Your task to perform on an android device: turn off data saver in the chrome app Image 0: 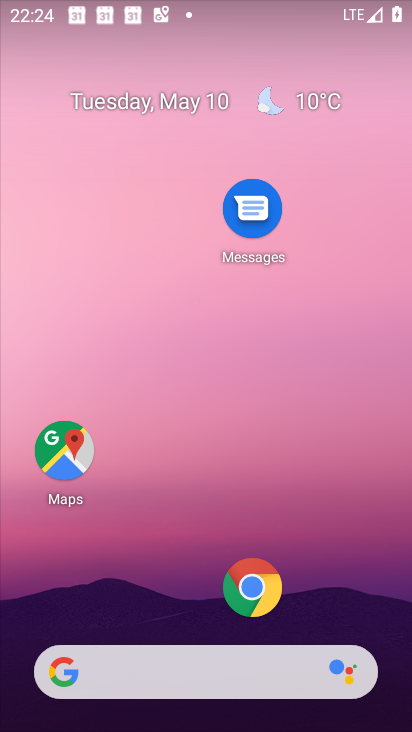
Step 0: click (260, 589)
Your task to perform on an android device: turn off data saver in the chrome app Image 1: 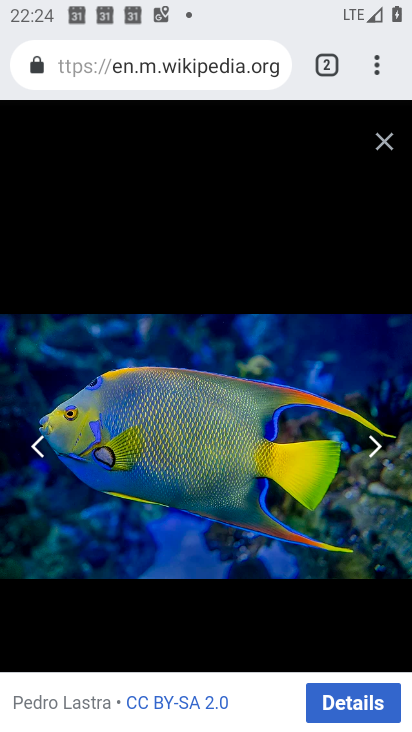
Step 1: press home button
Your task to perform on an android device: turn off data saver in the chrome app Image 2: 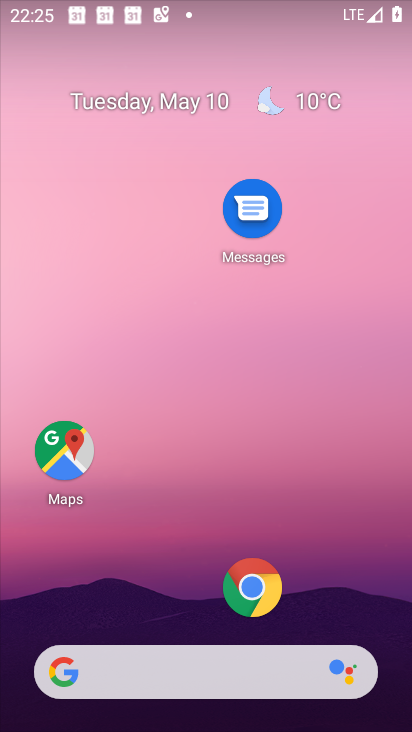
Step 2: click (255, 582)
Your task to perform on an android device: turn off data saver in the chrome app Image 3: 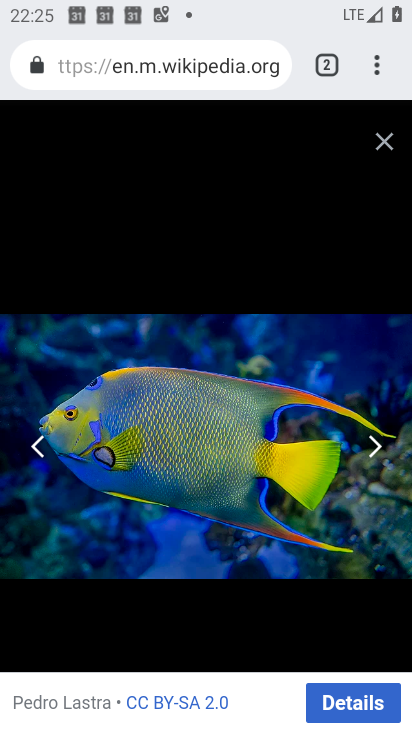
Step 3: click (371, 67)
Your task to perform on an android device: turn off data saver in the chrome app Image 4: 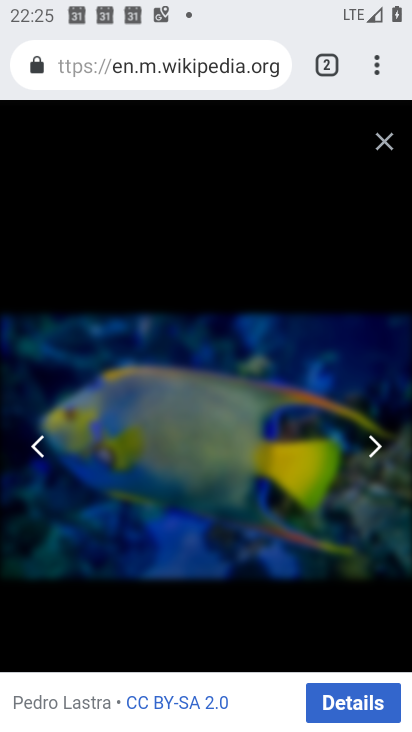
Step 4: click (379, 69)
Your task to perform on an android device: turn off data saver in the chrome app Image 5: 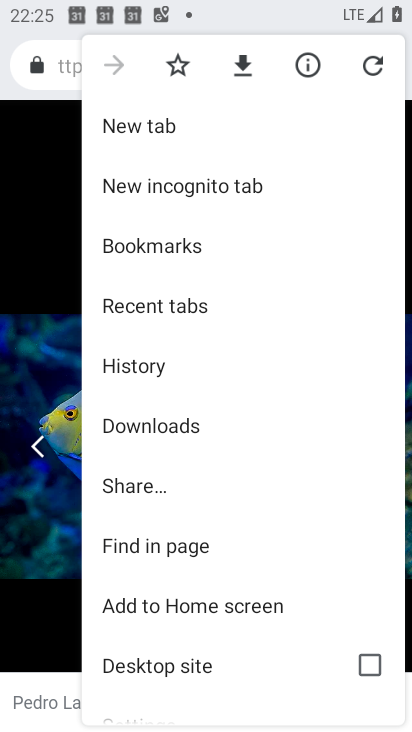
Step 5: drag from (141, 662) to (171, 392)
Your task to perform on an android device: turn off data saver in the chrome app Image 6: 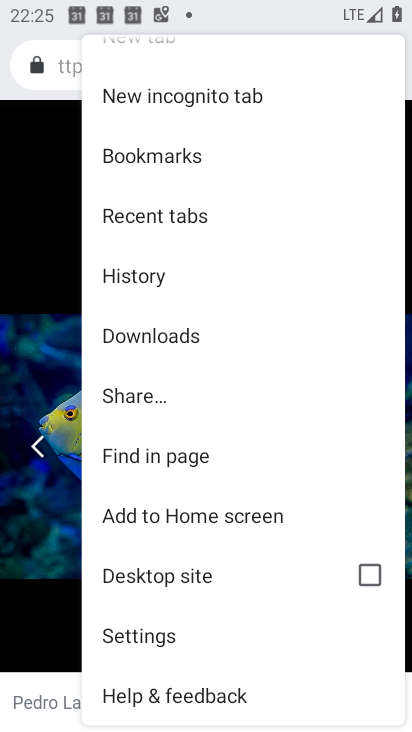
Step 6: click (142, 652)
Your task to perform on an android device: turn off data saver in the chrome app Image 7: 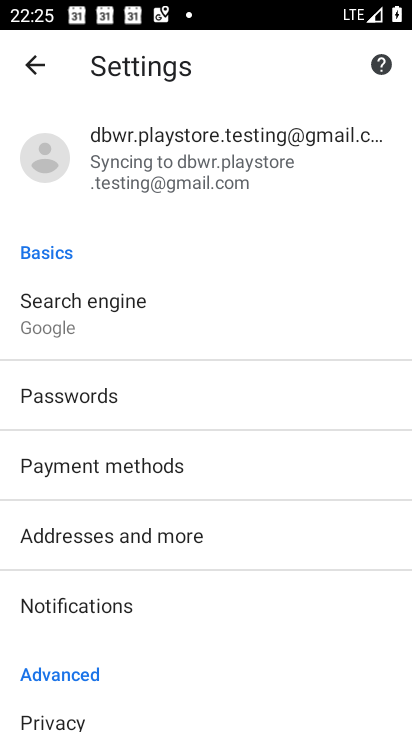
Step 7: drag from (146, 580) to (239, 206)
Your task to perform on an android device: turn off data saver in the chrome app Image 8: 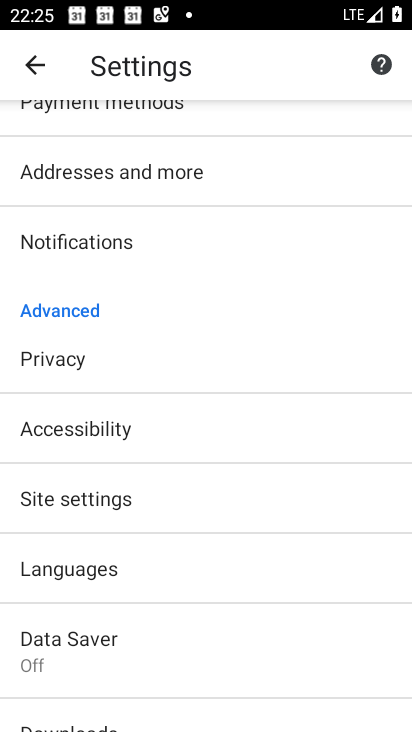
Step 8: drag from (113, 593) to (118, 405)
Your task to perform on an android device: turn off data saver in the chrome app Image 9: 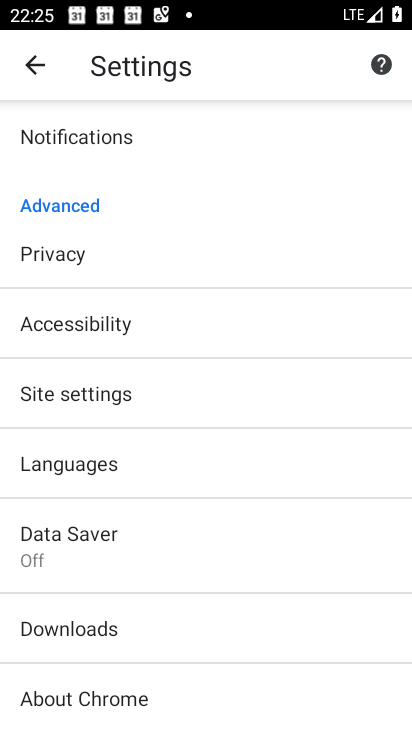
Step 9: click (84, 532)
Your task to perform on an android device: turn off data saver in the chrome app Image 10: 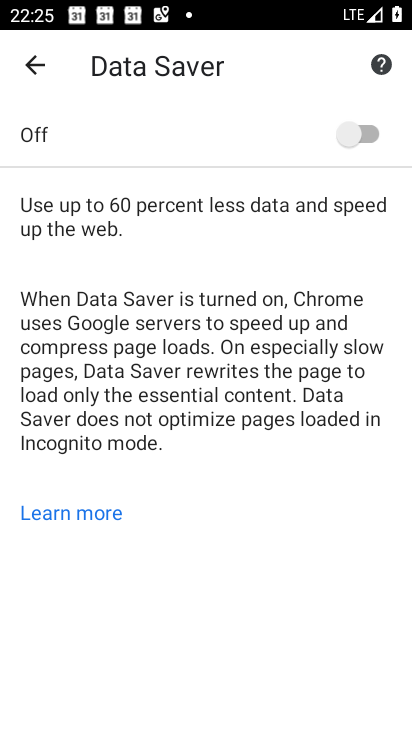
Step 10: task complete